Your task to perform on an android device: Do I have any events tomorrow? Image 0: 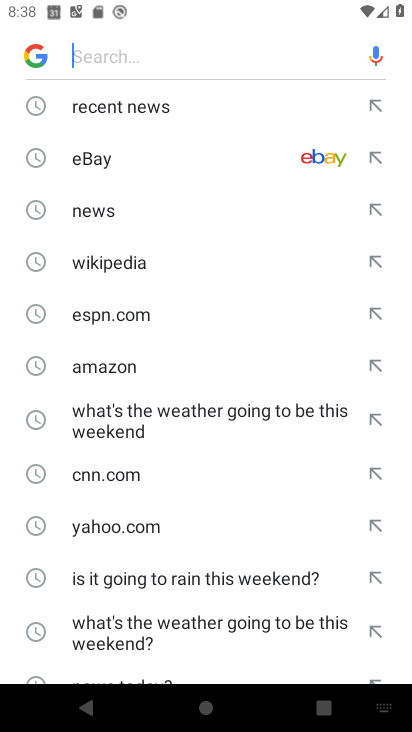
Step 0: click (171, 56)
Your task to perform on an android device: Do I have any events tomorrow? Image 1: 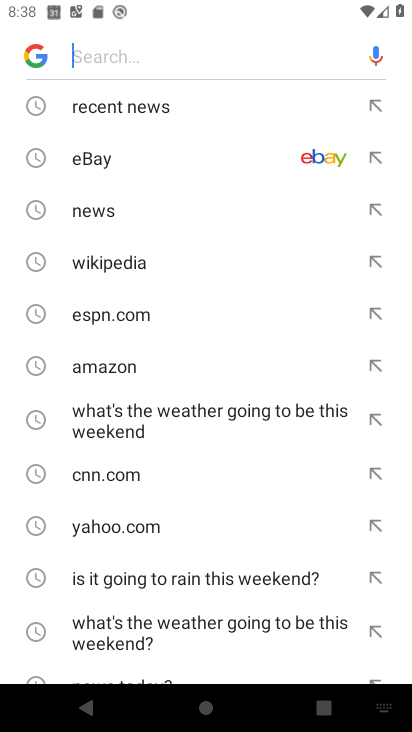
Step 1: press back button
Your task to perform on an android device: Do I have any events tomorrow? Image 2: 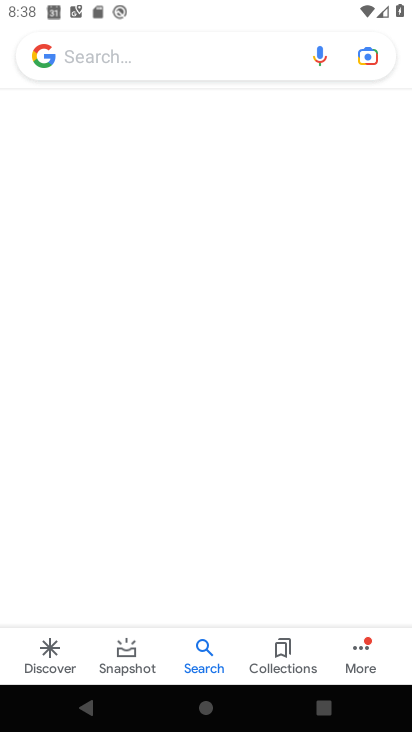
Step 2: press back button
Your task to perform on an android device: Do I have any events tomorrow? Image 3: 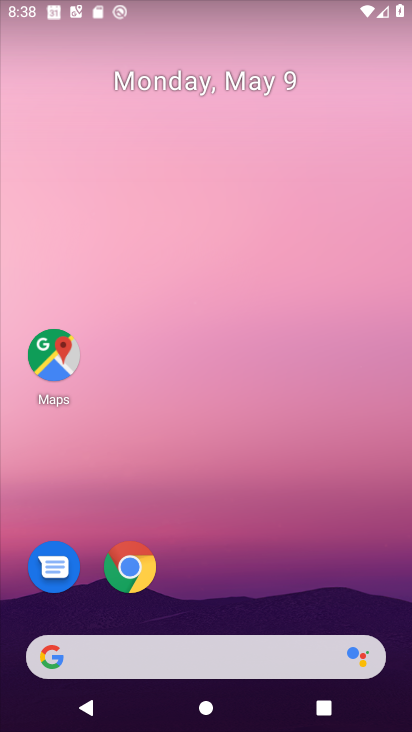
Step 3: drag from (261, 609) to (357, 79)
Your task to perform on an android device: Do I have any events tomorrow? Image 4: 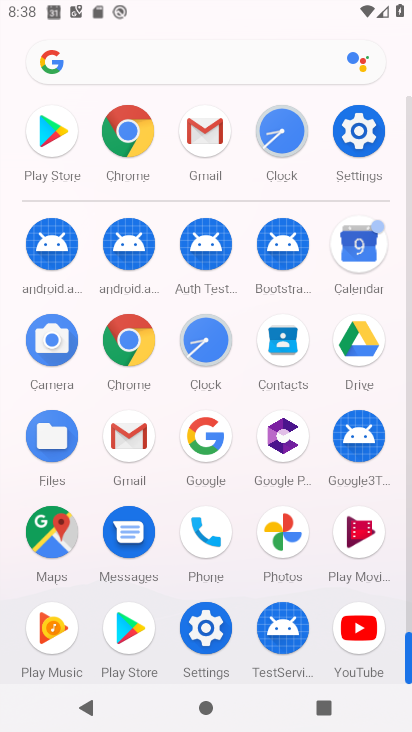
Step 4: click (368, 246)
Your task to perform on an android device: Do I have any events tomorrow? Image 5: 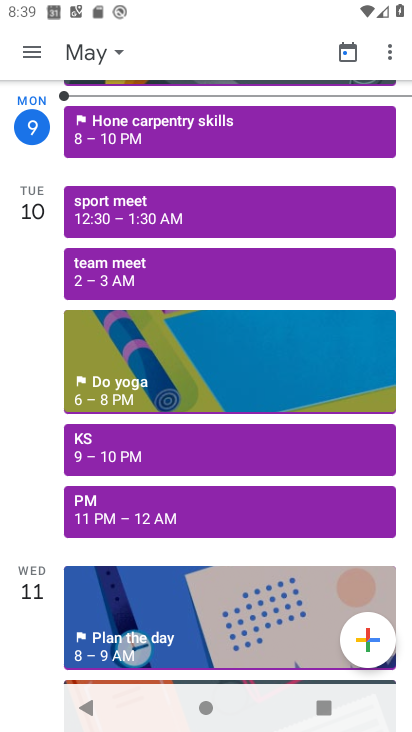
Step 5: task complete